Your task to perform on an android device: create a new album in the google photos Image 0: 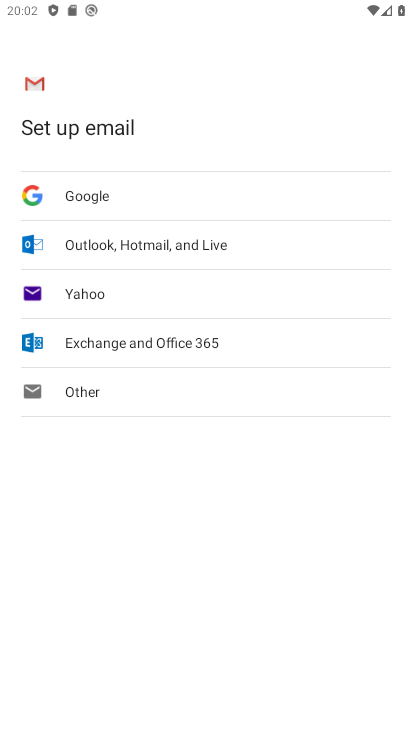
Step 0: press home button
Your task to perform on an android device: create a new album in the google photos Image 1: 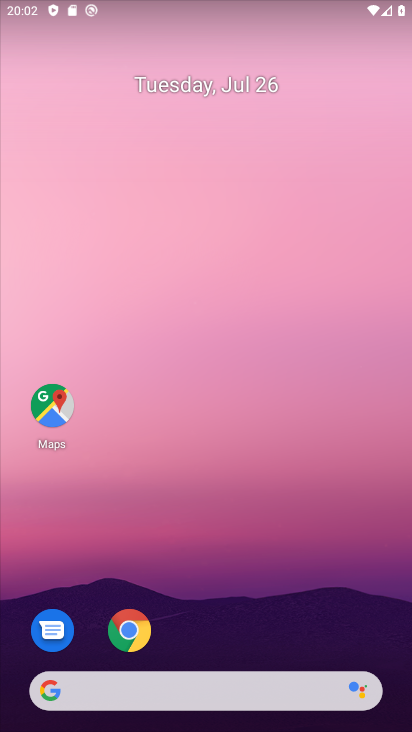
Step 1: drag from (300, 629) to (296, 233)
Your task to perform on an android device: create a new album in the google photos Image 2: 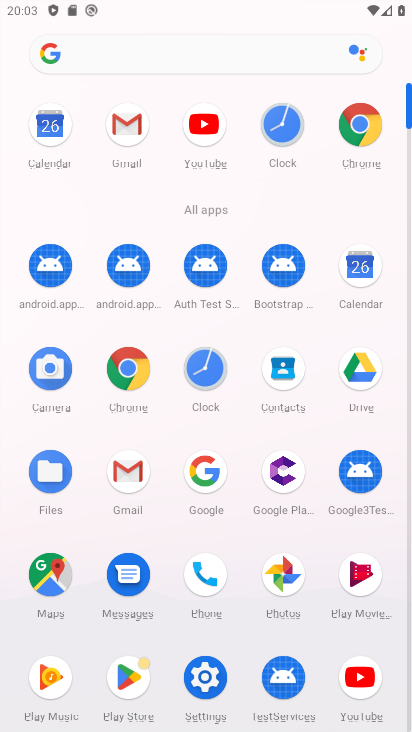
Step 2: click (280, 578)
Your task to perform on an android device: create a new album in the google photos Image 3: 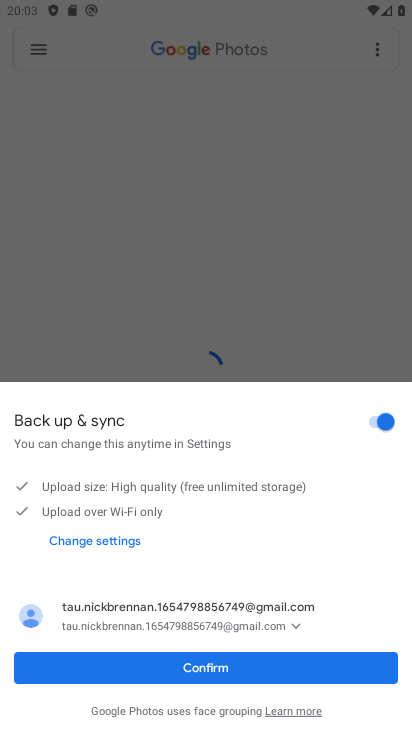
Step 3: click (222, 668)
Your task to perform on an android device: create a new album in the google photos Image 4: 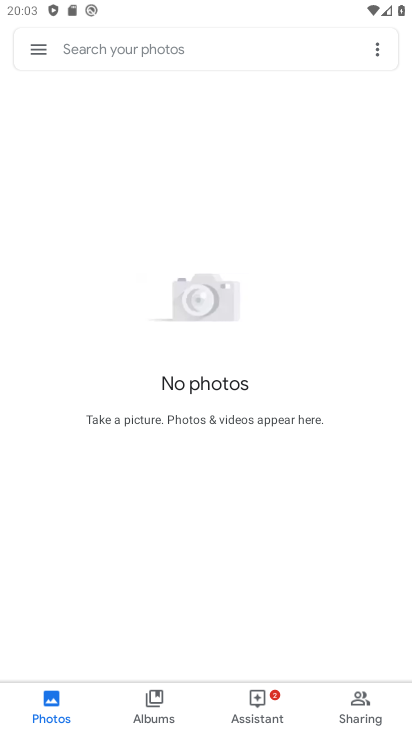
Step 4: click (374, 49)
Your task to perform on an android device: create a new album in the google photos Image 5: 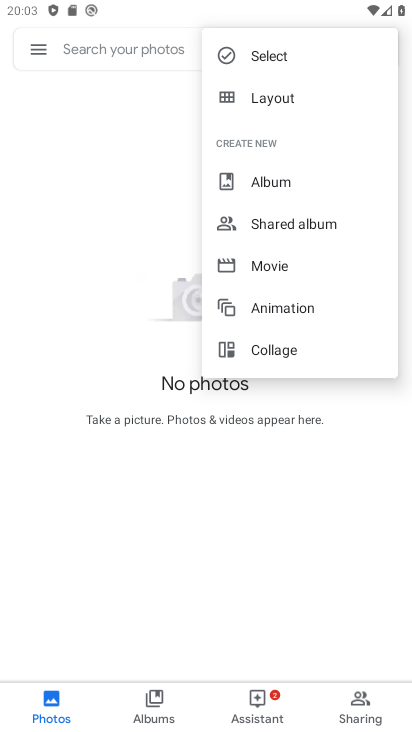
Step 5: click (268, 188)
Your task to perform on an android device: create a new album in the google photos Image 6: 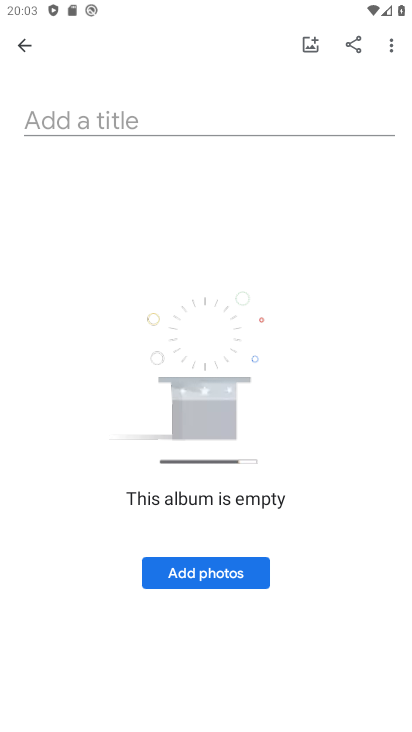
Step 6: click (204, 117)
Your task to perform on an android device: create a new album in the google photos Image 7: 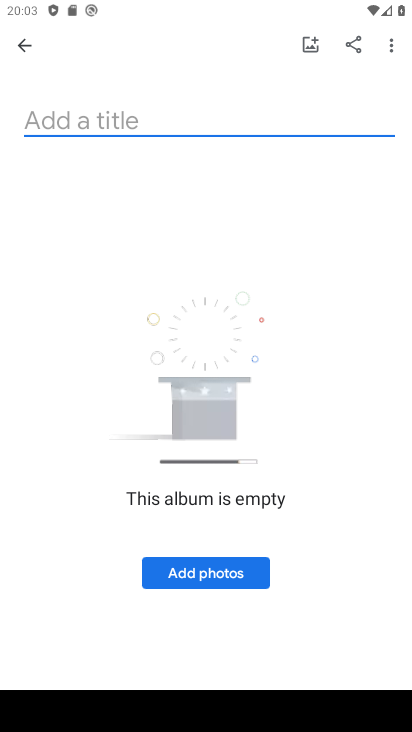
Step 7: type "fav"
Your task to perform on an android device: create a new album in the google photos Image 8: 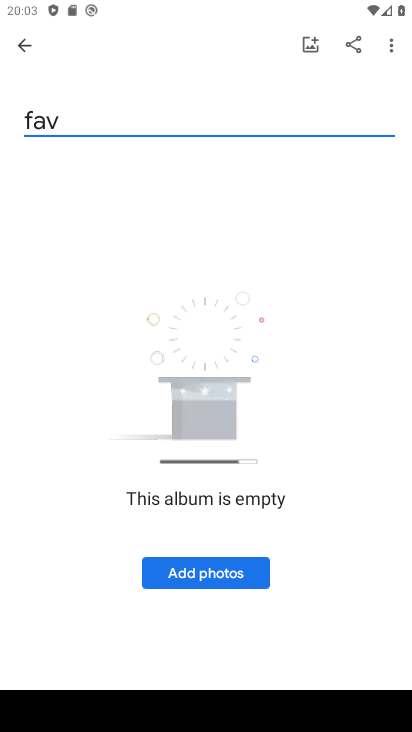
Step 8: click (233, 573)
Your task to perform on an android device: create a new album in the google photos Image 9: 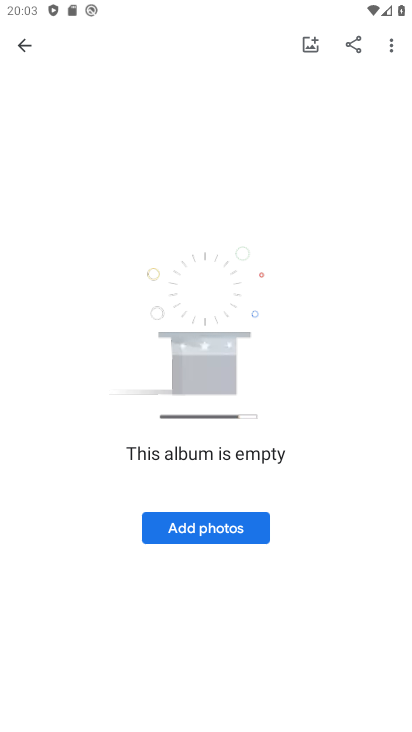
Step 9: click (211, 533)
Your task to perform on an android device: create a new album in the google photos Image 10: 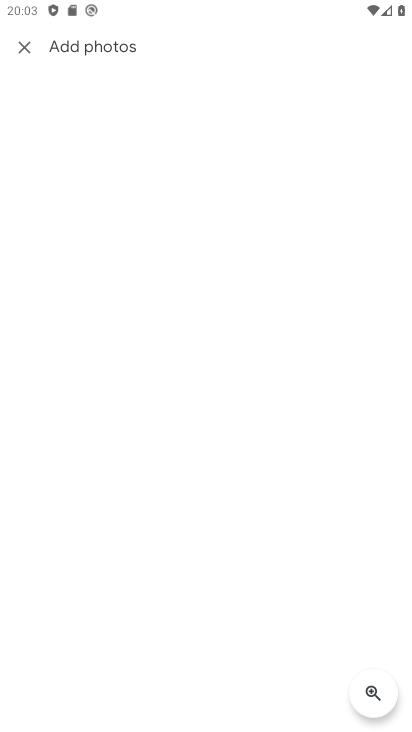
Step 10: task complete